Your task to perform on an android device: Open settings Image 0: 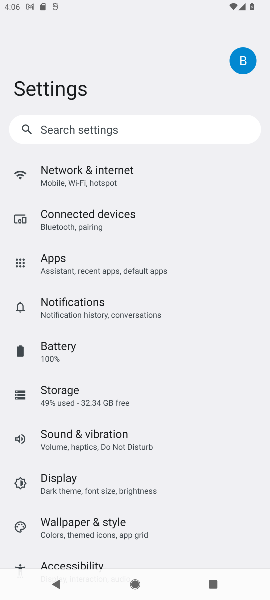
Step 0: press home button
Your task to perform on an android device: Open settings Image 1: 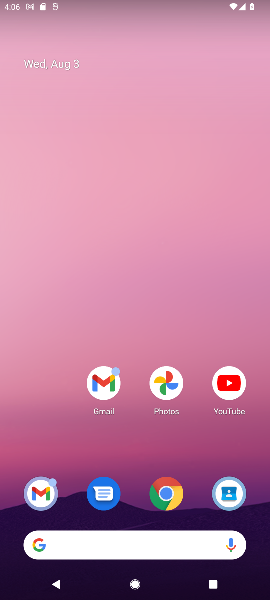
Step 1: drag from (43, 440) to (60, 200)
Your task to perform on an android device: Open settings Image 2: 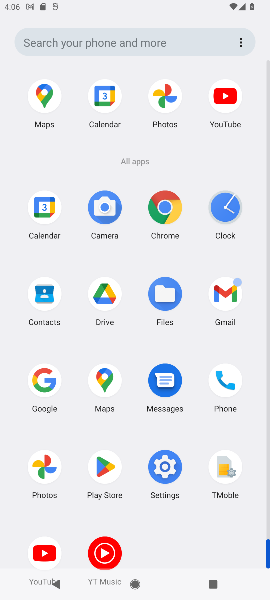
Step 2: click (179, 469)
Your task to perform on an android device: Open settings Image 3: 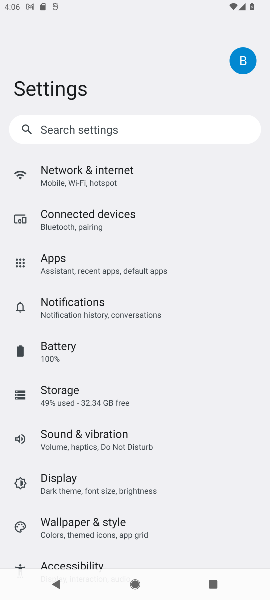
Step 3: task complete